Your task to perform on an android device: Add "beats solo 3" to the cart on amazon, then select checkout. Image 0: 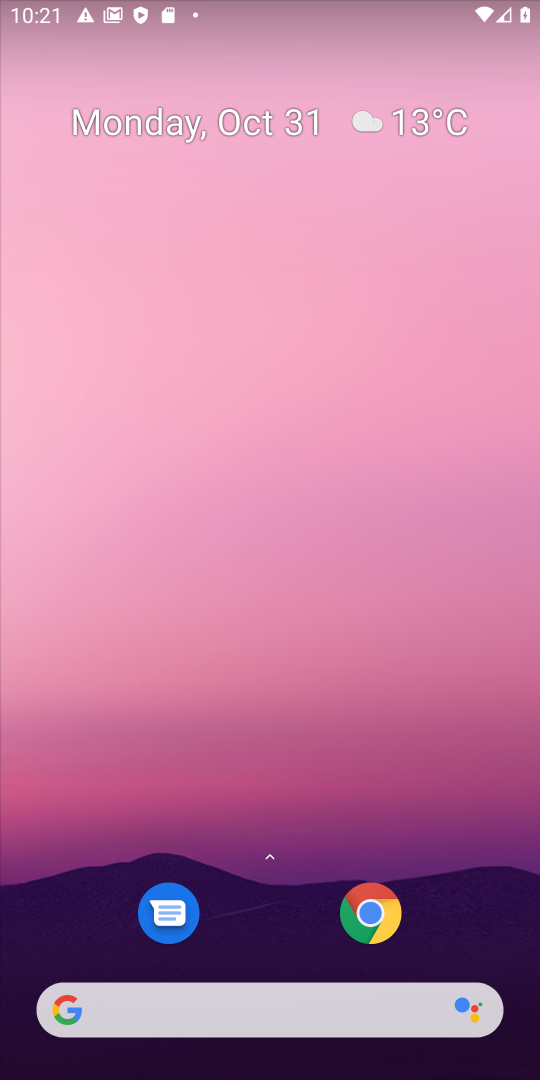
Step 0: click (289, 1021)
Your task to perform on an android device: Add "beats solo 3" to the cart on amazon, then select checkout. Image 1: 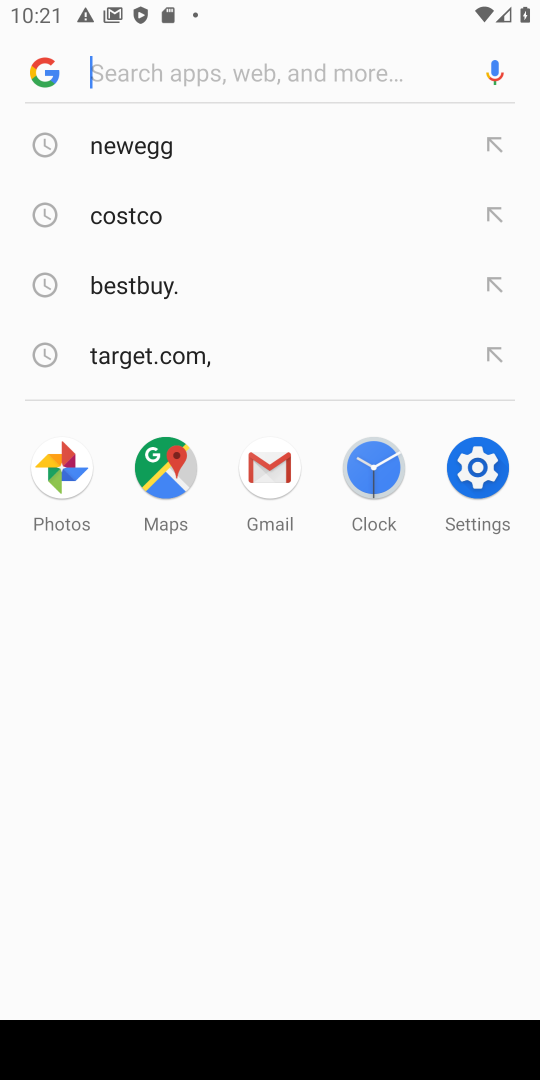
Step 1: type "amazone"
Your task to perform on an android device: Add "beats solo 3" to the cart on amazon, then select checkout. Image 2: 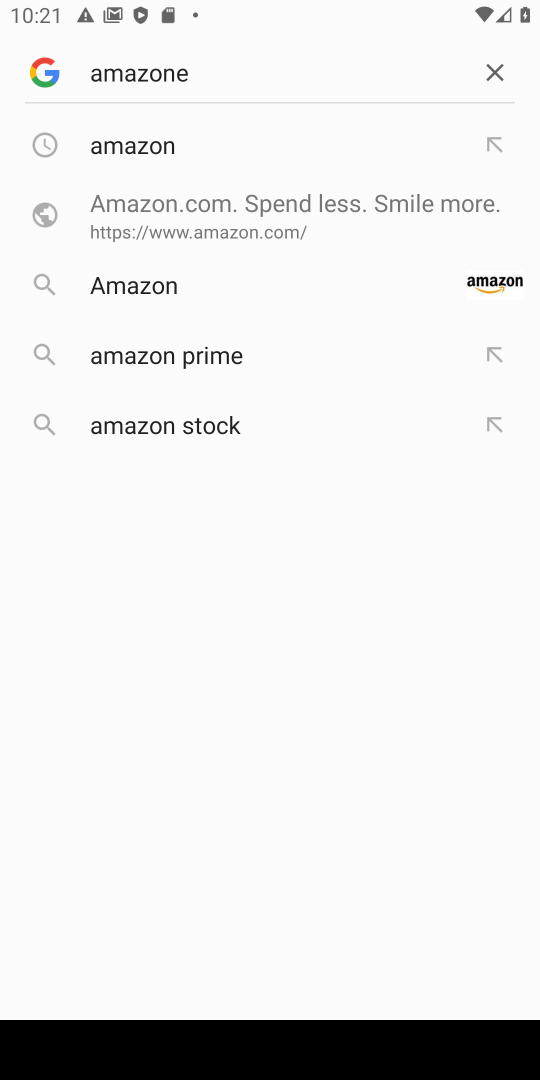
Step 2: click (167, 134)
Your task to perform on an android device: Add "beats solo 3" to the cart on amazon, then select checkout. Image 3: 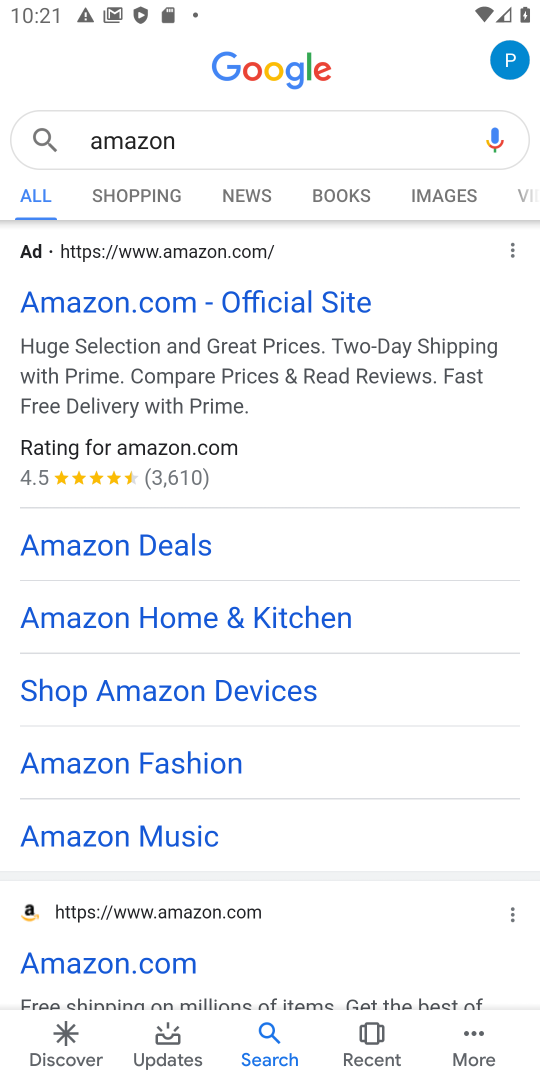
Step 3: click (148, 296)
Your task to perform on an android device: Add "beats solo 3" to the cart on amazon, then select checkout. Image 4: 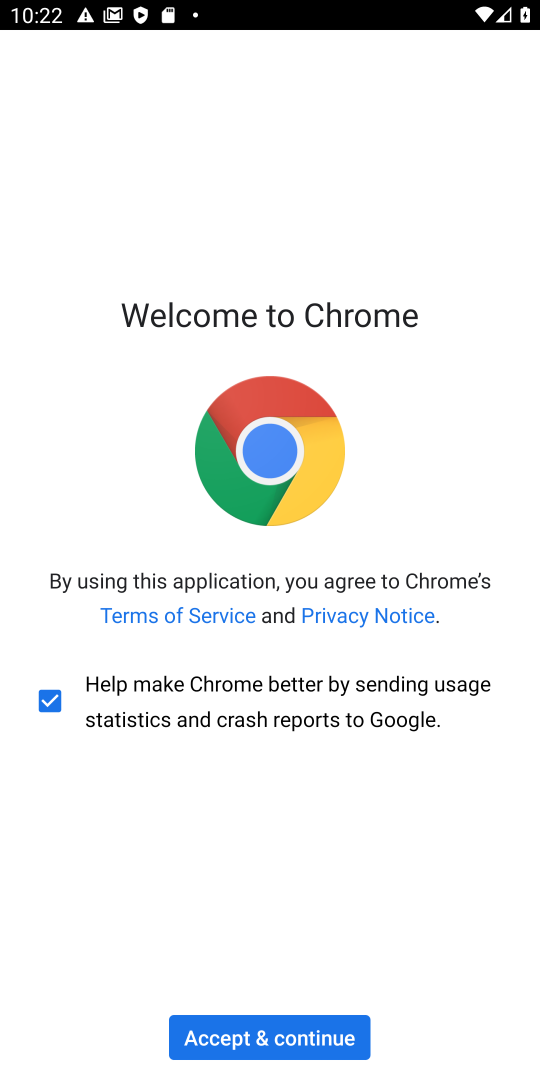
Step 4: click (240, 1023)
Your task to perform on an android device: Add "beats solo 3" to the cart on amazon, then select checkout. Image 5: 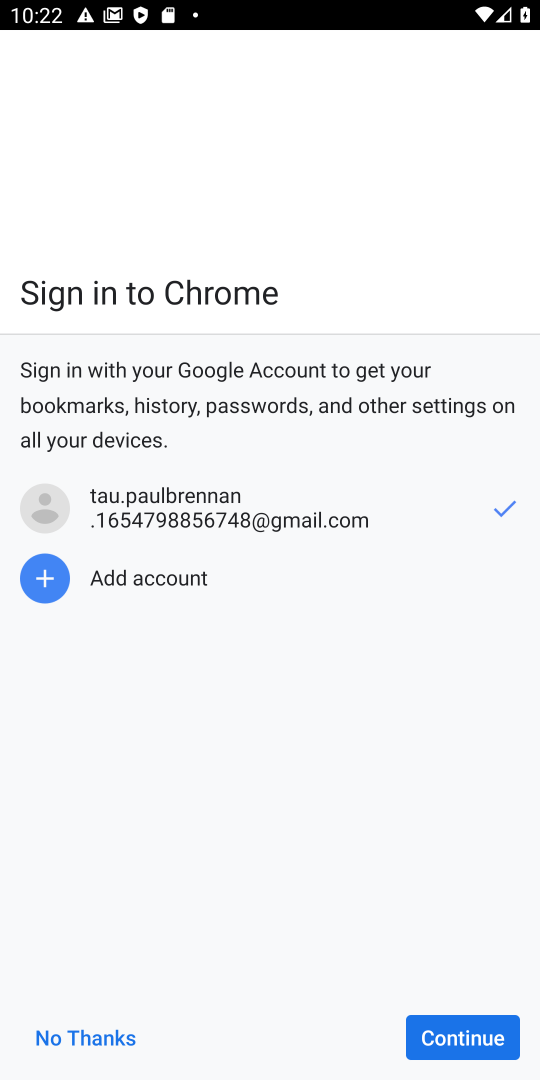
Step 5: click (465, 1045)
Your task to perform on an android device: Add "beats solo 3" to the cart on amazon, then select checkout. Image 6: 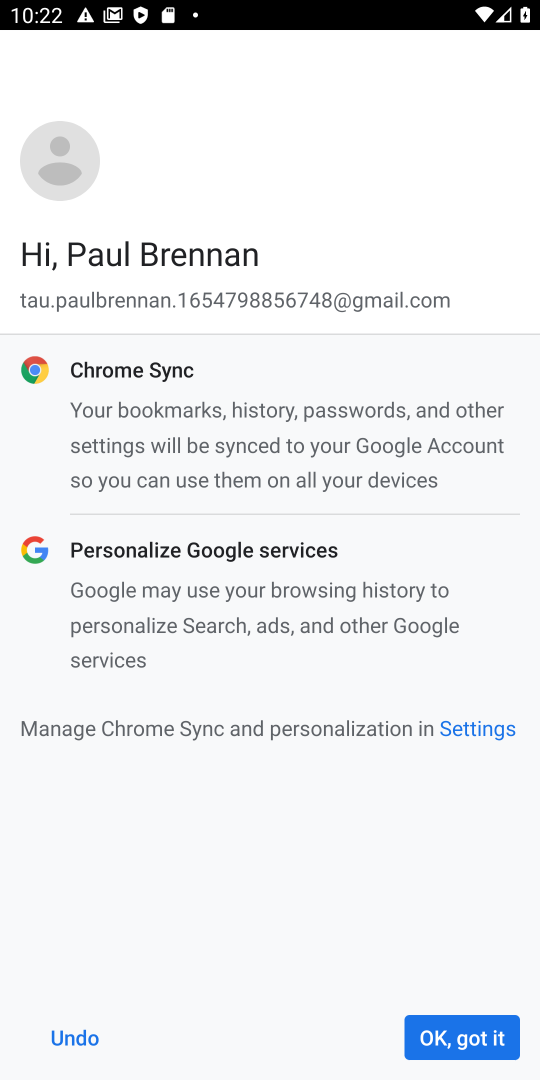
Step 6: click (446, 1033)
Your task to perform on an android device: Add "beats solo 3" to the cart on amazon, then select checkout. Image 7: 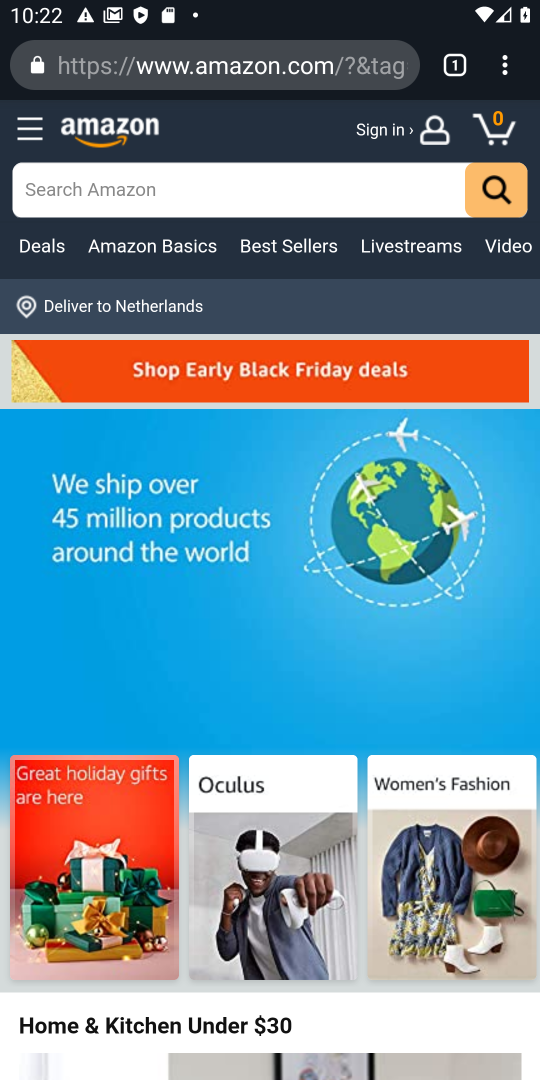
Step 7: click (291, 185)
Your task to perform on an android device: Add "beats solo 3" to the cart on amazon, then select checkout. Image 8: 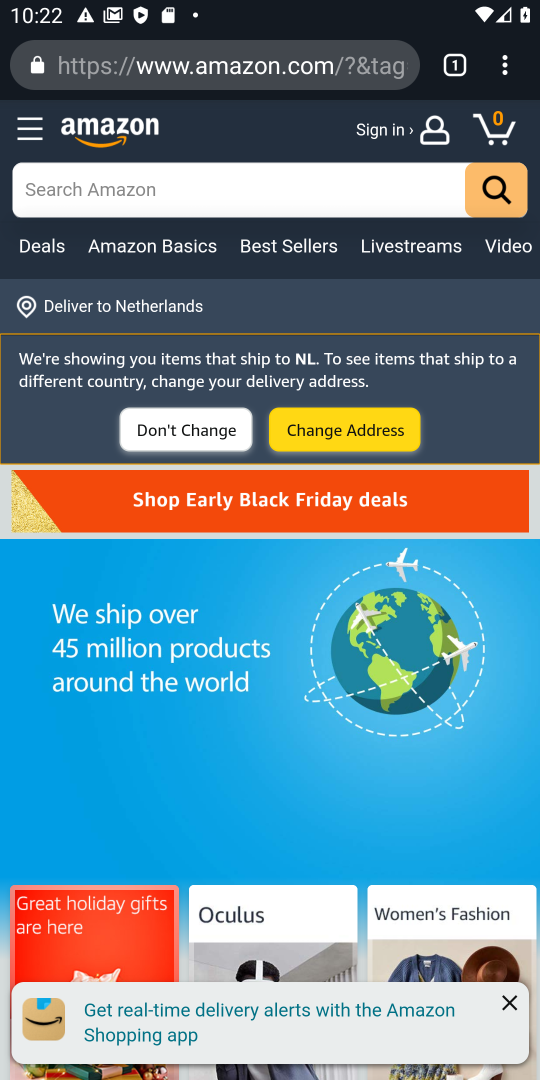
Step 8: type "beat solo 3"
Your task to perform on an android device: Add "beats solo 3" to the cart on amazon, then select checkout. Image 9: 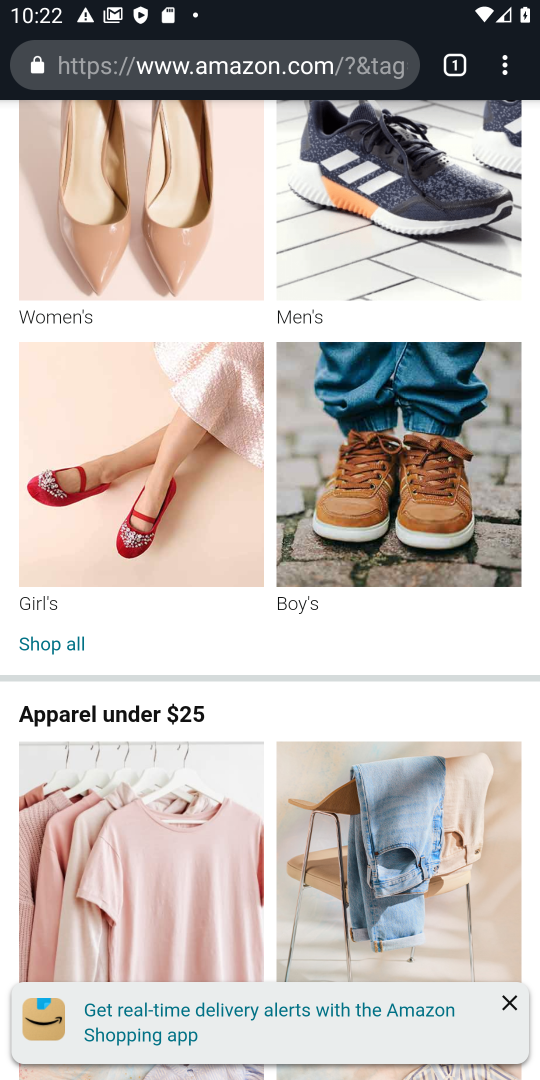
Step 9: task complete